Your task to perform on an android device: Go to Wikipedia Image 0: 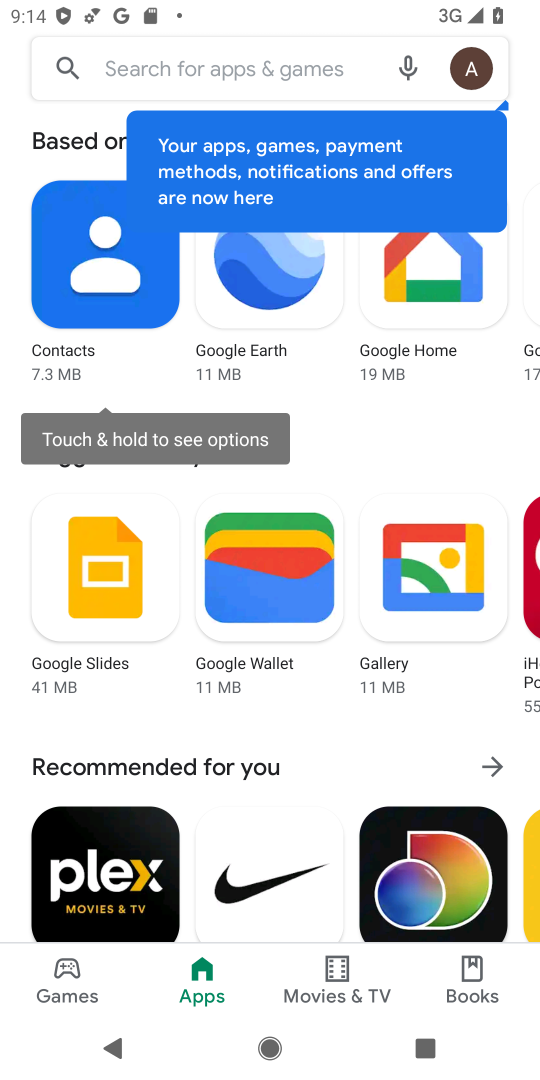
Step 0: press home button
Your task to perform on an android device: Go to Wikipedia Image 1: 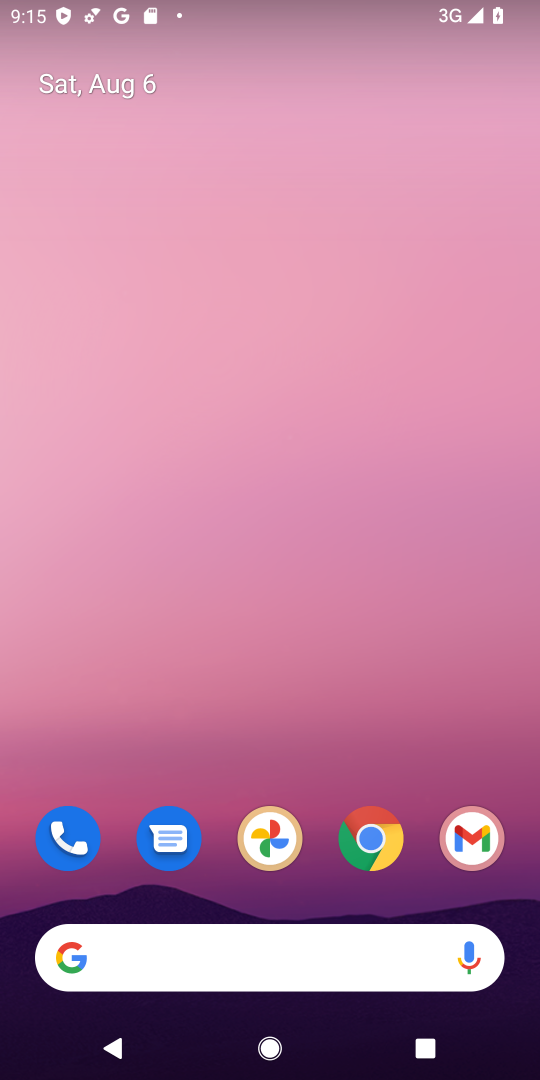
Step 1: click (359, 836)
Your task to perform on an android device: Go to Wikipedia Image 2: 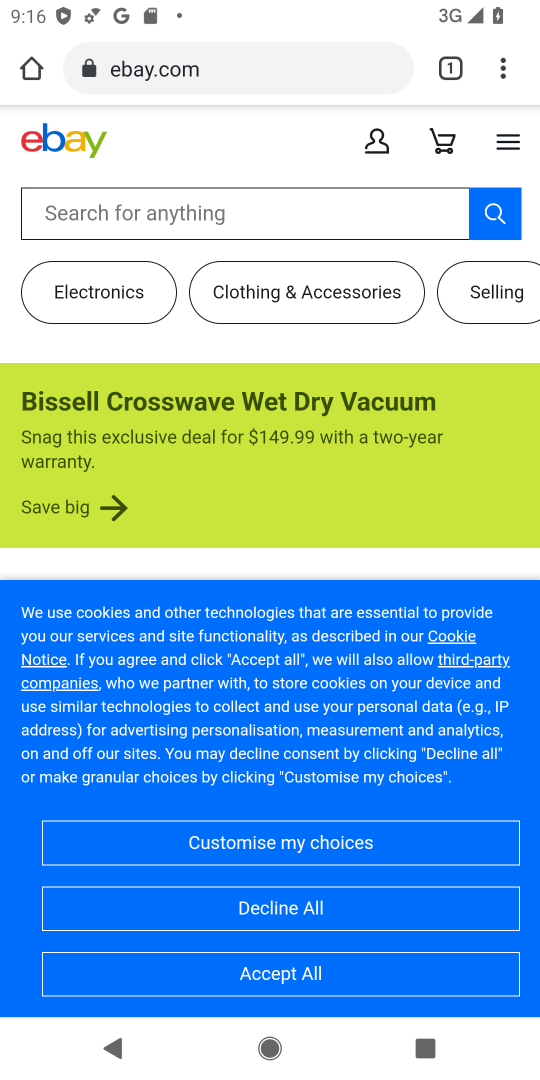
Step 2: click (443, 62)
Your task to perform on an android device: Go to Wikipedia Image 3: 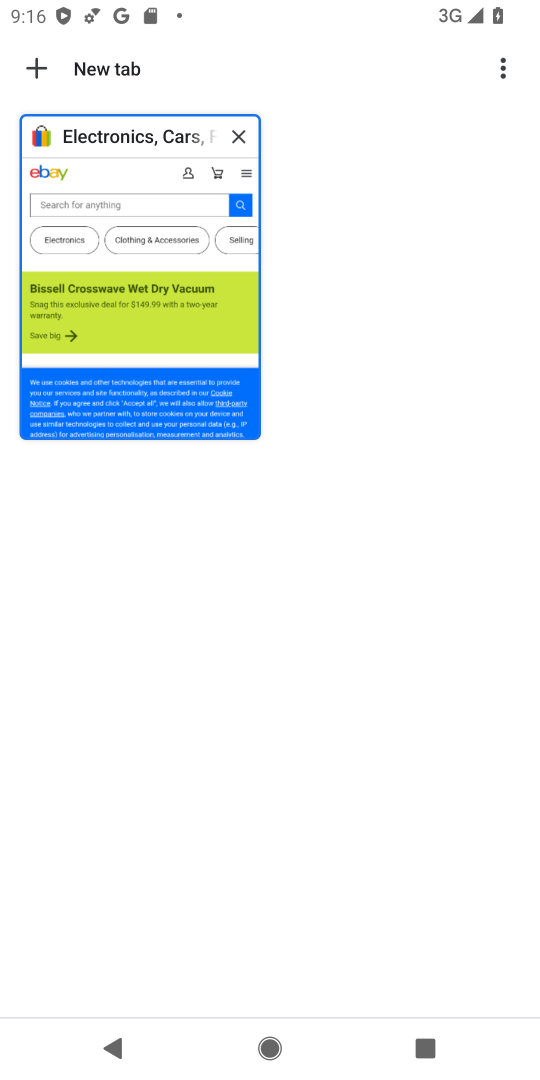
Step 3: click (241, 134)
Your task to perform on an android device: Go to Wikipedia Image 4: 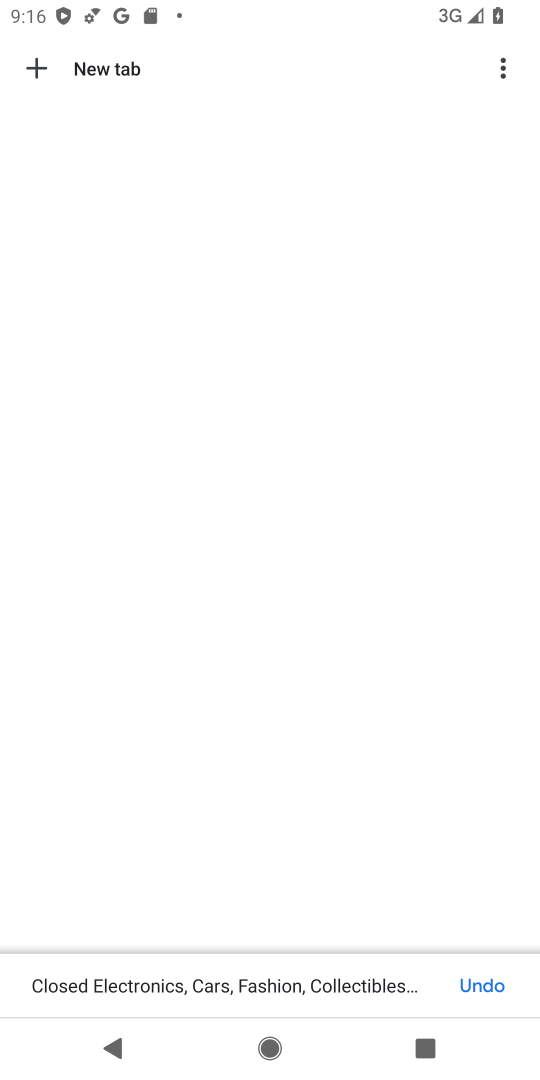
Step 4: click (30, 67)
Your task to perform on an android device: Go to Wikipedia Image 5: 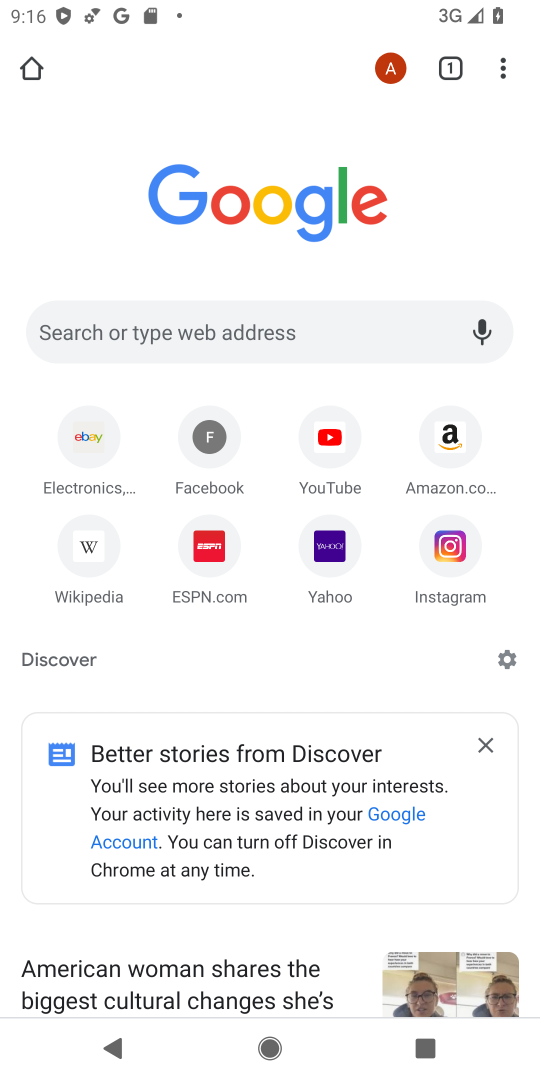
Step 5: click (74, 552)
Your task to perform on an android device: Go to Wikipedia Image 6: 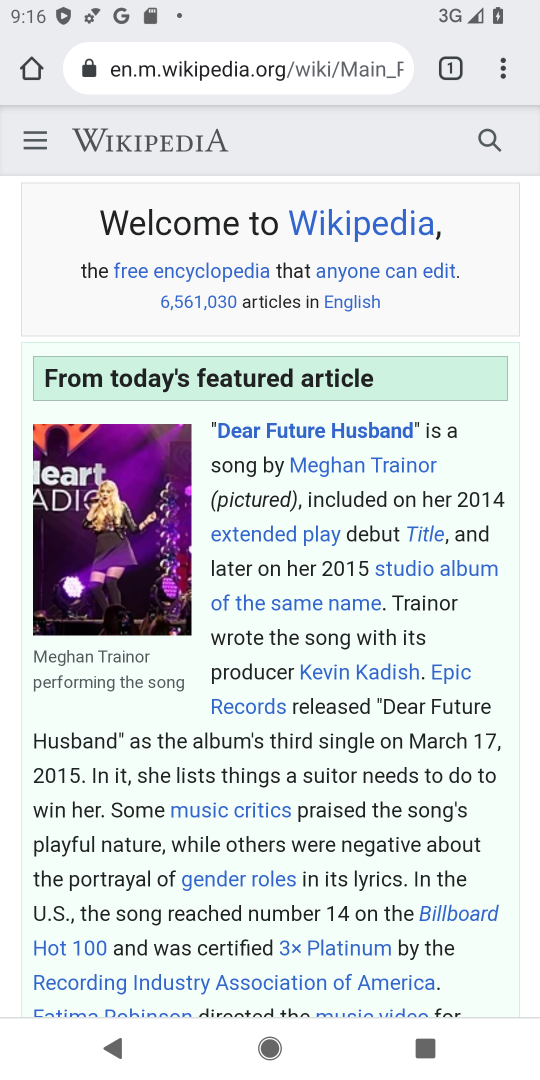
Step 6: task complete